Your task to perform on an android device: change the upload size in google photos Image 0: 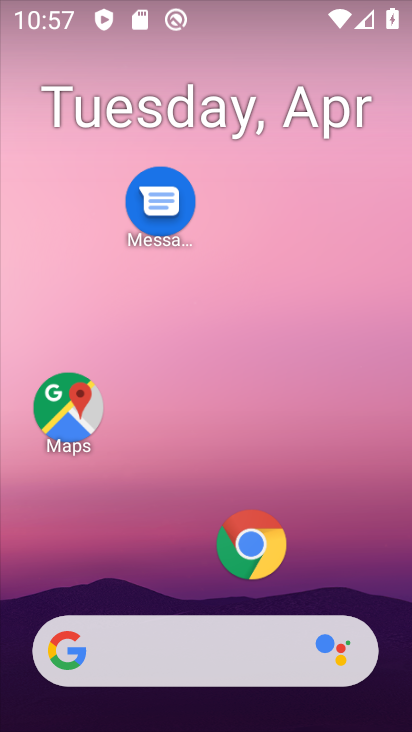
Step 0: drag from (157, 488) to (214, 27)
Your task to perform on an android device: change the upload size in google photos Image 1: 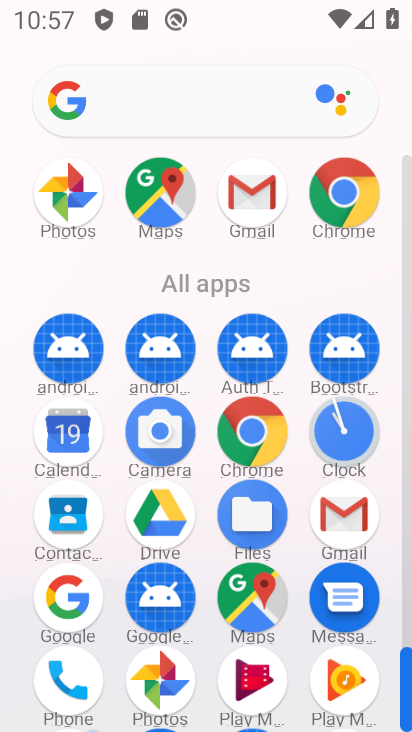
Step 1: click (162, 683)
Your task to perform on an android device: change the upload size in google photos Image 2: 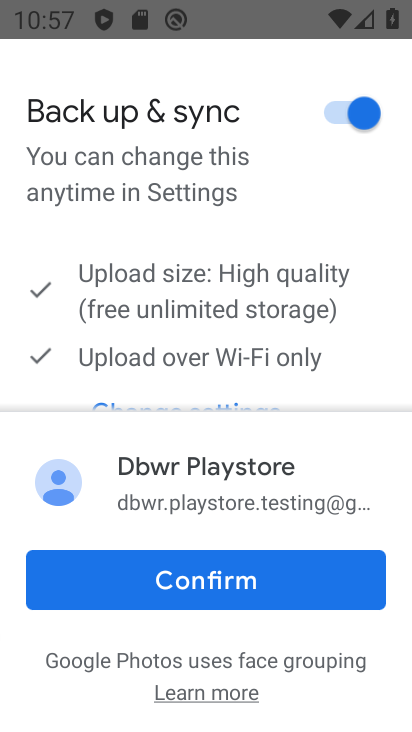
Step 2: click (255, 579)
Your task to perform on an android device: change the upload size in google photos Image 3: 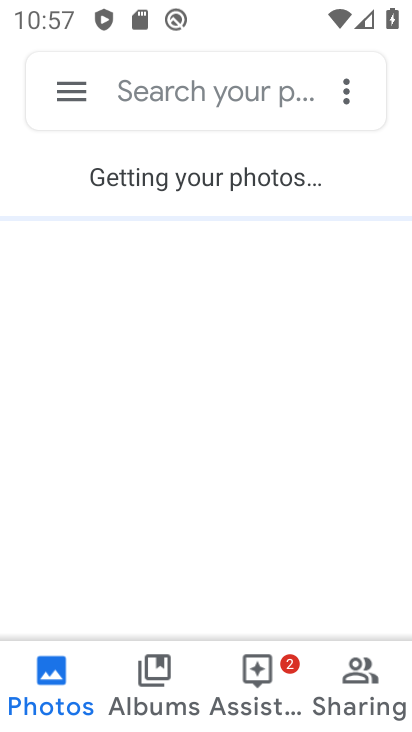
Step 3: click (70, 100)
Your task to perform on an android device: change the upload size in google photos Image 4: 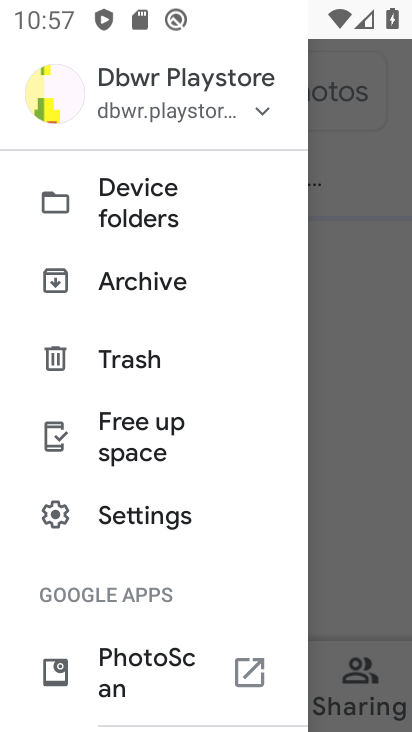
Step 4: click (166, 518)
Your task to perform on an android device: change the upload size in google photos Image 5: 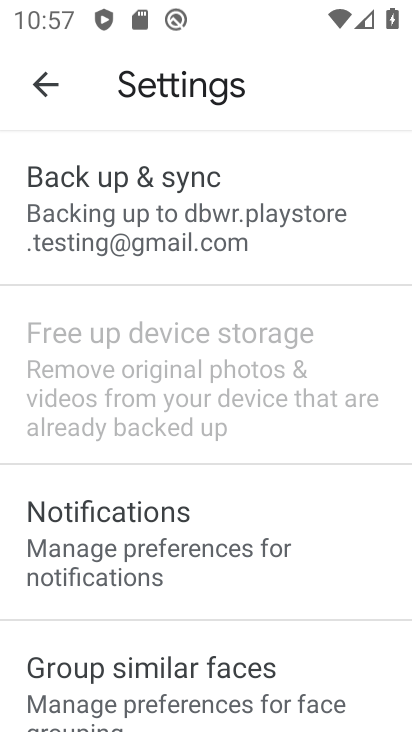
Step 5: click (137, 177)
Your task to perform on an android device: change the upload size in google photos Image 6: 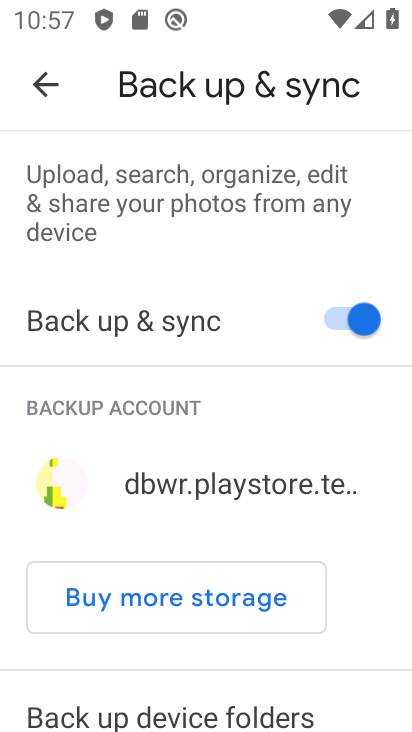
Step 6: drag from (165, 493) to (251, 14)
Your task to perform on an android device: change the upload size in google photos Image 7: 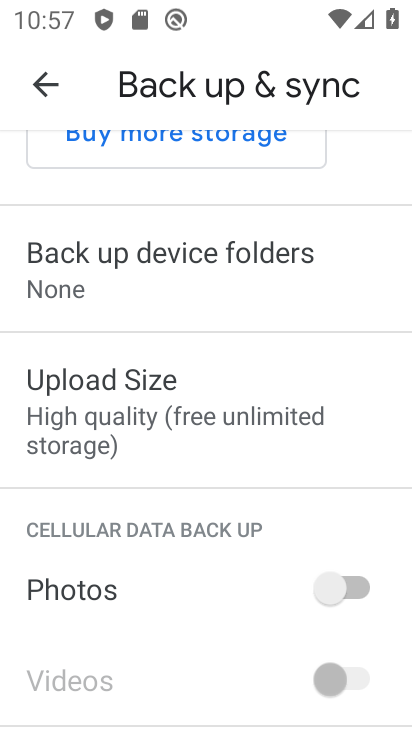
Step 7: click (132, 401)
Your task to perform on an android device: change the upload size in google photos Image 8: 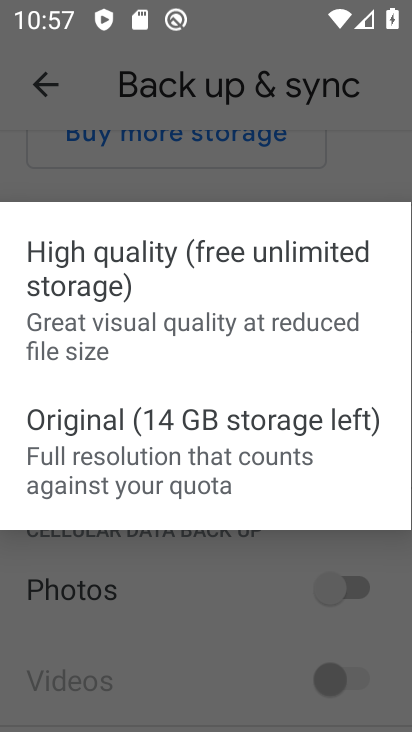
Step 8: click (107, 442)
Your task to perform on an android device: change the upload size in google photos Image 9: 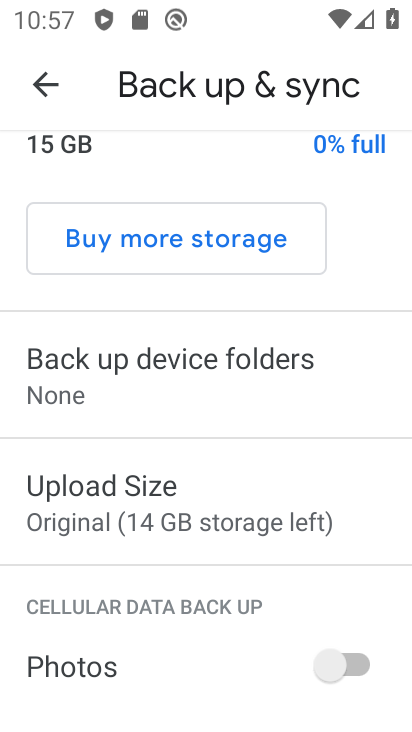
Step 9: task complete